Your task to perform on an android device: Check the weather Image 0: 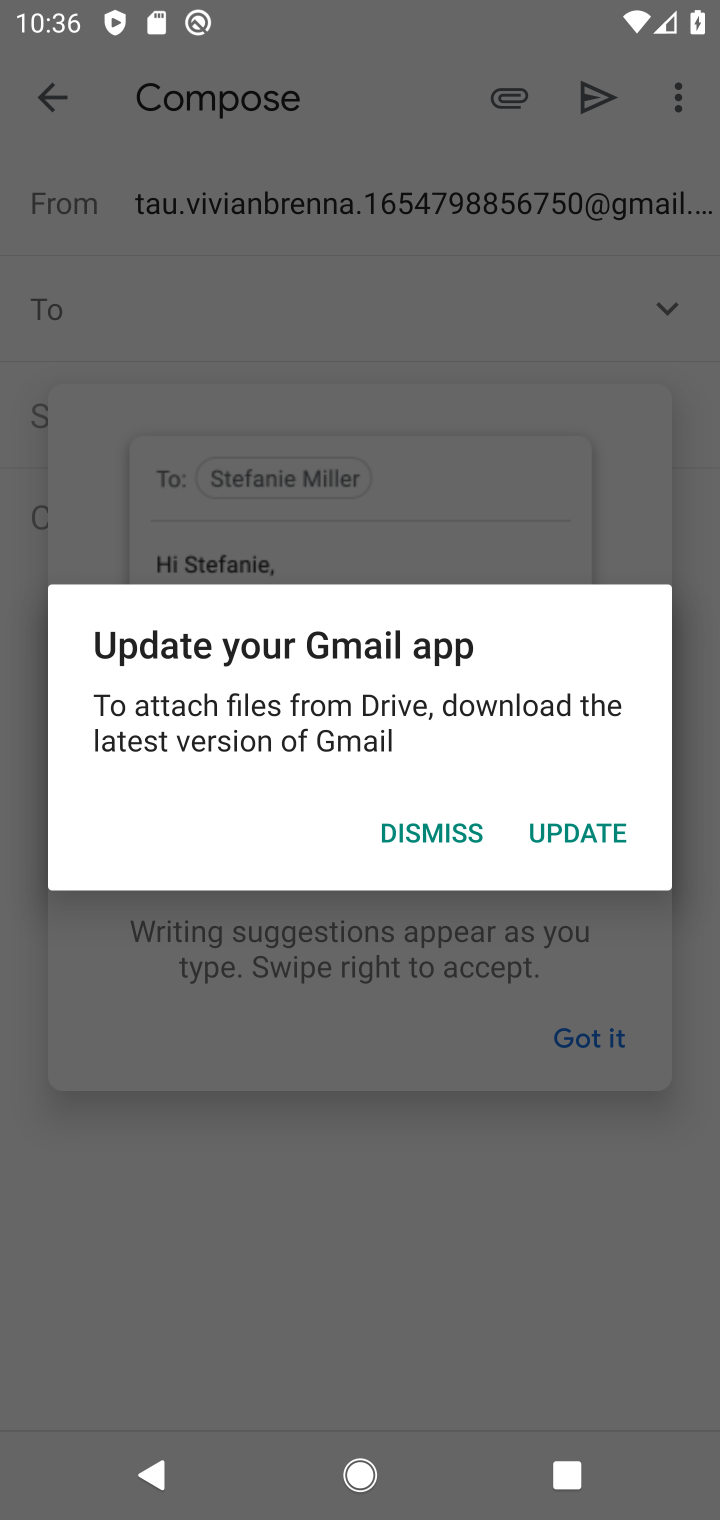
Step 0: press home button
Your task to perform on an android device: Check the weather Image 1: 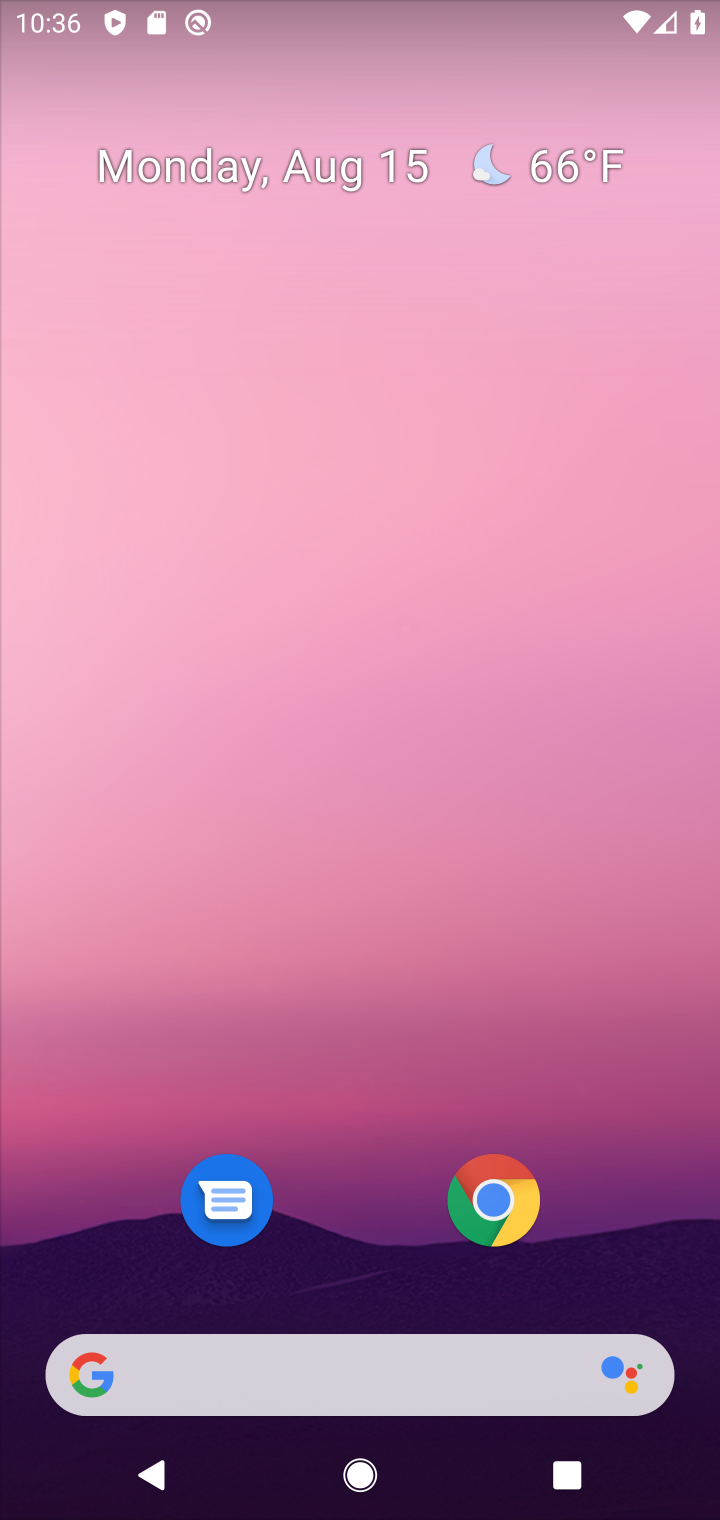
Step 1: click (554, 174)
Your task to perform on an android device: Check the weather Image 2: 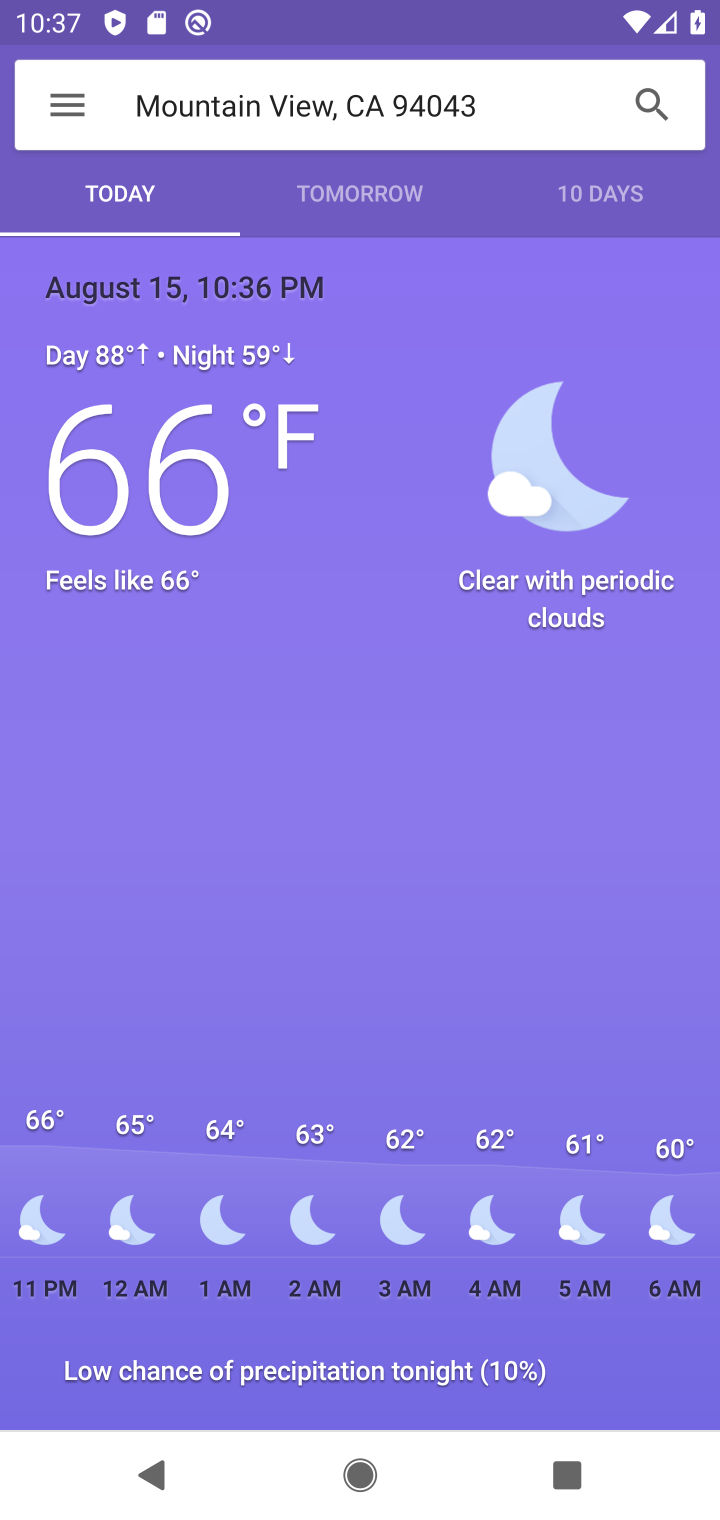
Step 2: task complete